Your task to perform on an android device: Play the last video I watched on Youtube Image 0: 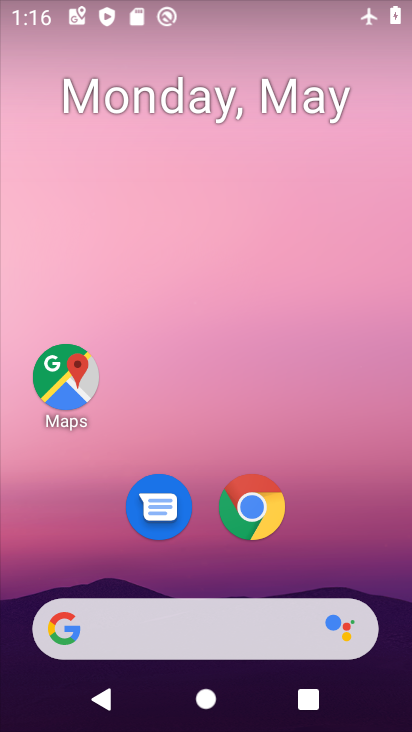
Step 0: drag from (232, 723) to (233, 26)
Your task to perform on an android device: Play the last video I watched on Youtube Image 1: 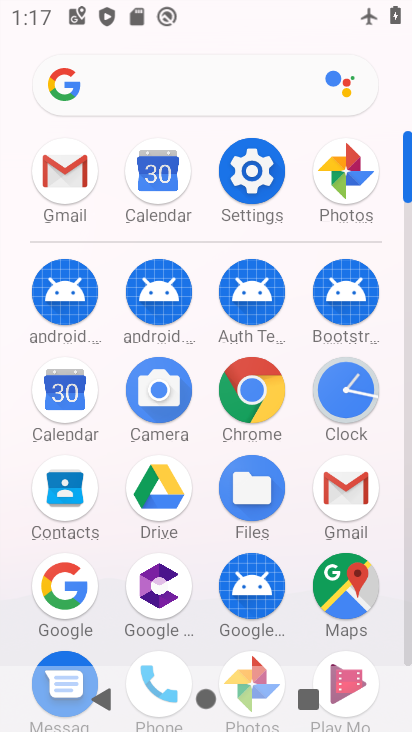
Step 1: drag from (290, 605) to (252, 105)
Your task to perform on an android device: Play the last video I watched on Youtube Image 2: 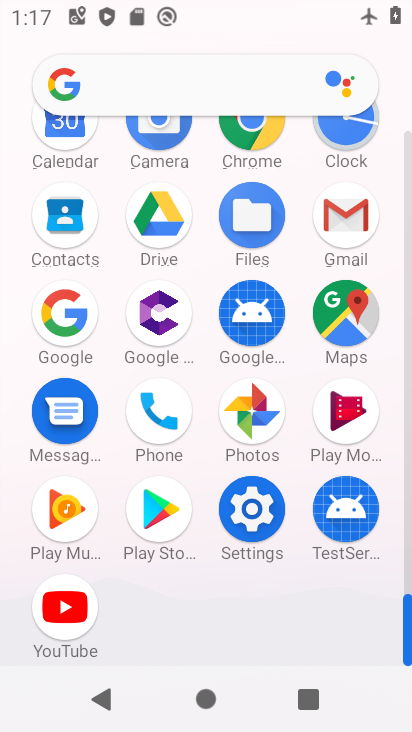
Step 2: click (70, 633)
Your task to perform on an android device: Play the last video I watched on Youtube Image 3: 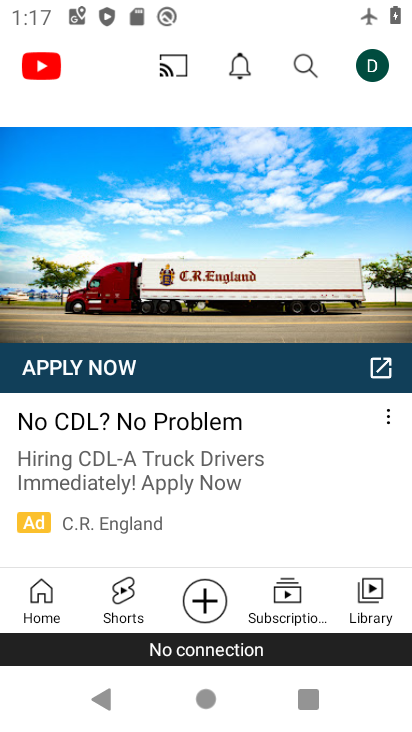
Step 3: click (364, 595)
Your task to perform on an android device: Play the last video I watched on Youtube Image 4: 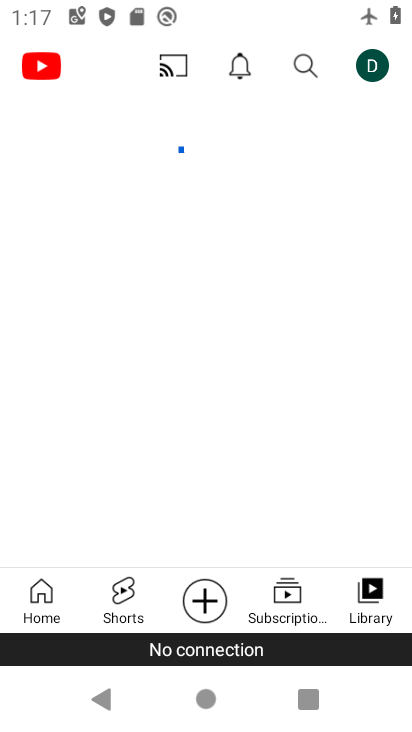
Step 4: task complete